Your task to perform on an android device: Go to notification settings Image 0: 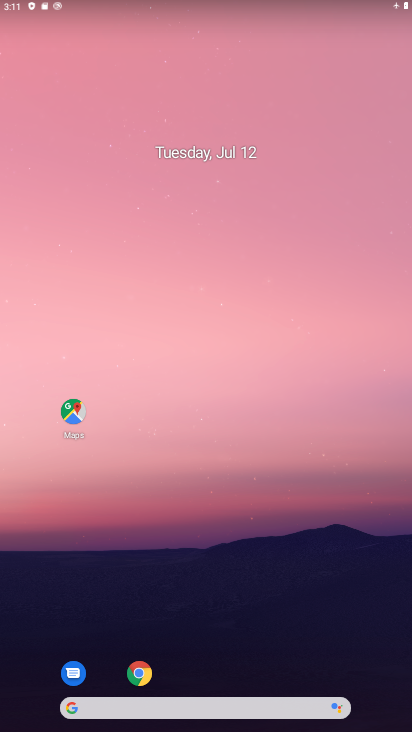
Step 0: drag from (184, 713) to (170, 228)
Your task to perform on an android device: Go to notification settings Image 1: 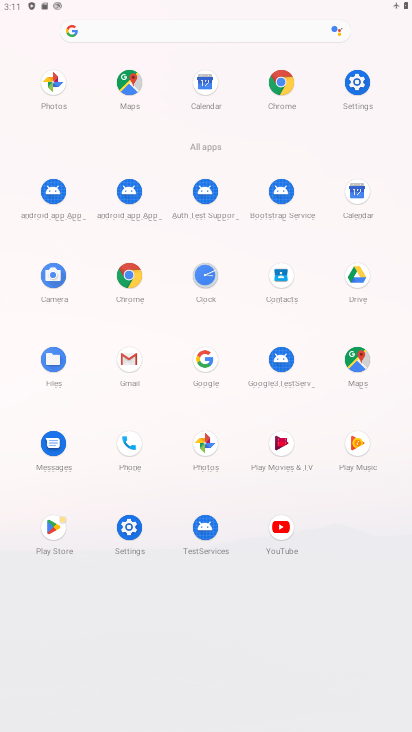
Step 1: click (356, 82)
Your task to perform on an android device: Go to notification settings Image 2: 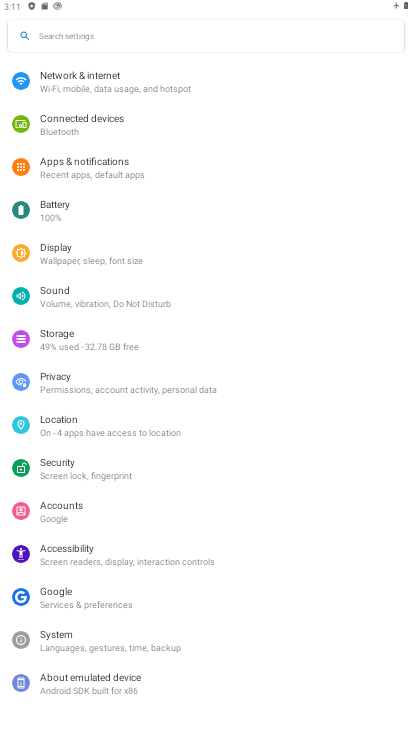
Step 2: click (126, 170)
Your task to perform on an android device: Go to notification settings Image 3: 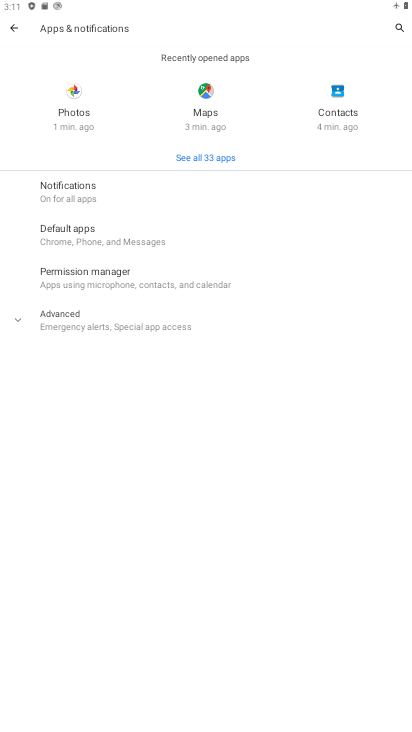
Step 3: click (70, 188)
Your task to perform on an android device: Go to notification settings Image 4: 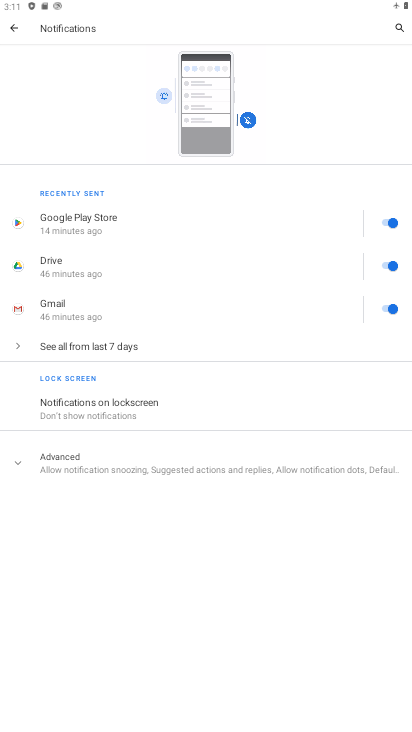
Step 4: task complete